Your task to perform on an android device: change your default location settings in chrome Image 0: 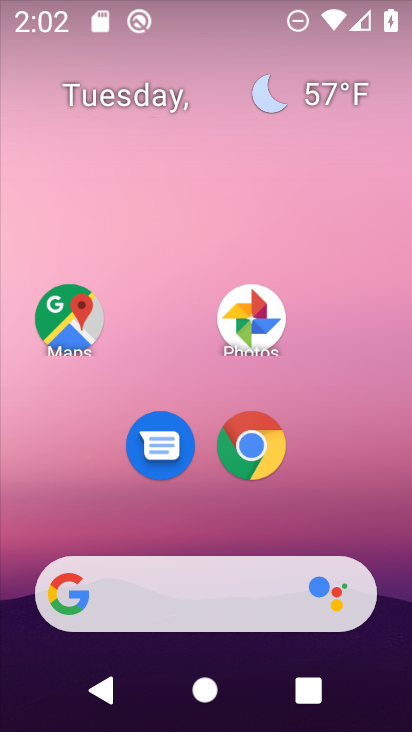
Step 0: drag from (377, 533) to (375, 197)
Your task to perform on an android device: change your default location settings in chrome Image 1: 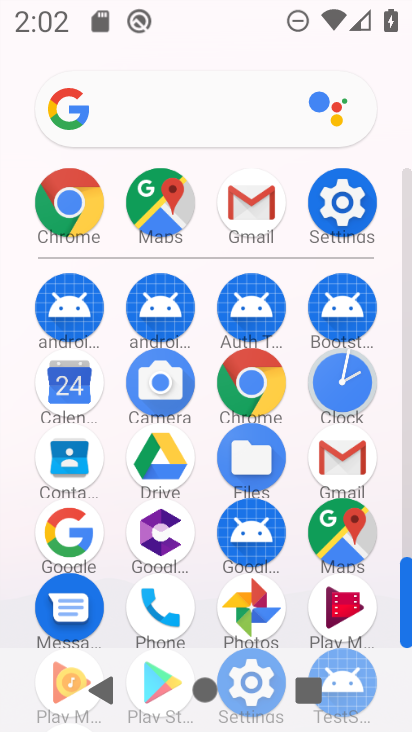
Step 1: click (271, 369)
Your task to perform on an android device: change your default location settings in chrome Image 2: 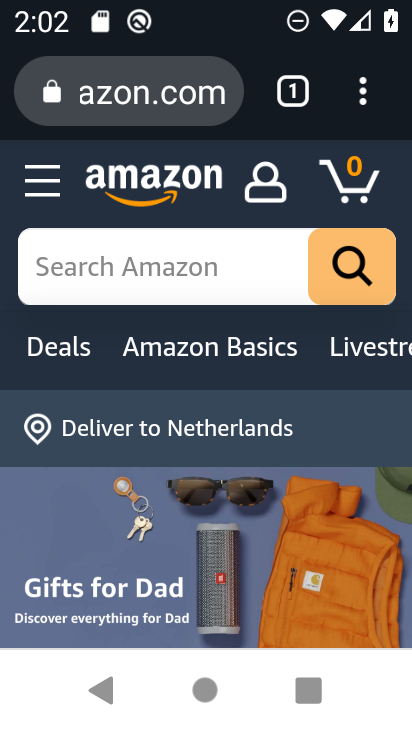
Step 2: click (365, 108)
Your task to perform on an android device: change your default location settings in chrome Image 3: 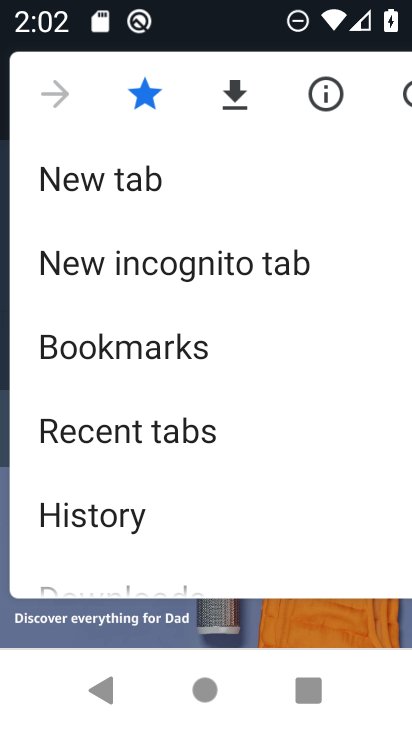
Step 3: drag from (321, 505) to (329, 397)
Your task to perform on an android device: change your default location settings in chrome Image 4: 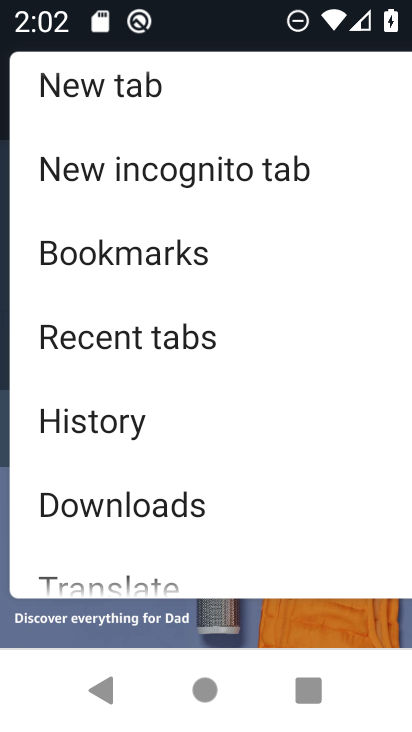
Step 4: drag from (342, 525) to (368, 392)
Your task to perform on an android device: change your default location settings in chrome Image 5: 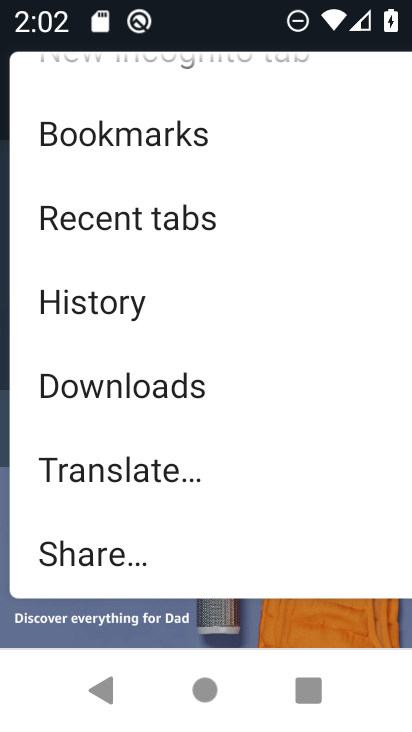
Step 5: drag from (330, 551) to (327, 418)
Your task to perform on an android device: change your default location settings in chrome Image 6: 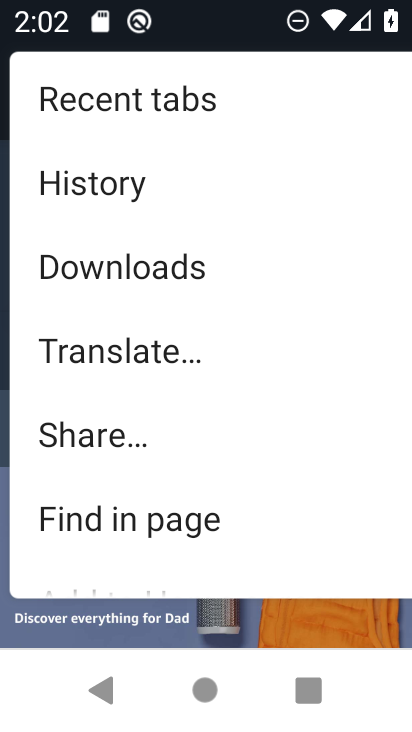
Step 6: drag from (317, 543) to (334, 351)
Your task to perform on an android device: change your default location settings in chrome Image 7: 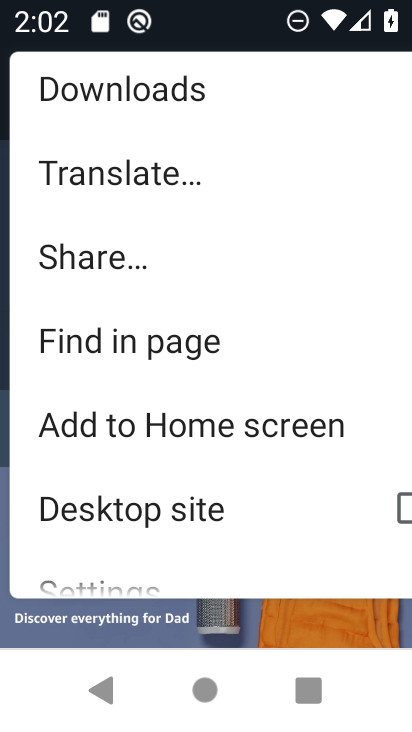
Step 7: drag from (311, 532) to (309, 372)
Your task to perform on an android device: change your default location settings in chrome Image 8: 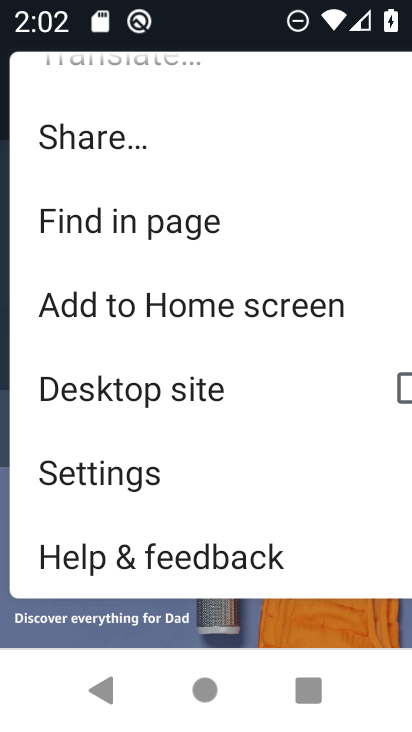
Step 8: click (175, 490)
Your task to perform on an android device: change your default location settings in chrome Image 9: 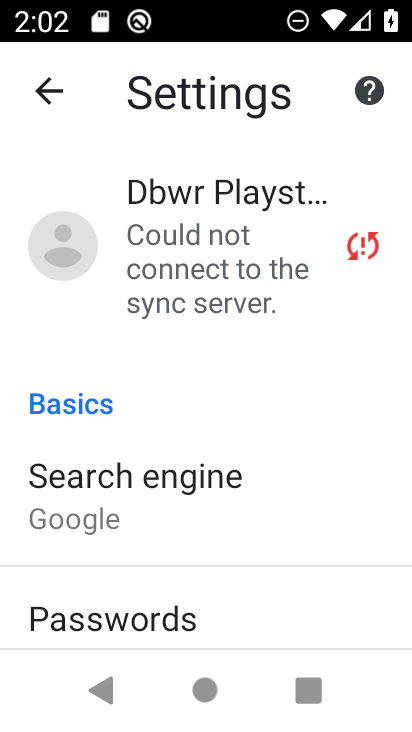
Step 9: drag from (320, 591) to (318, 494)
Your task to perform on an android device: change your default location settings in chrome Image 10: 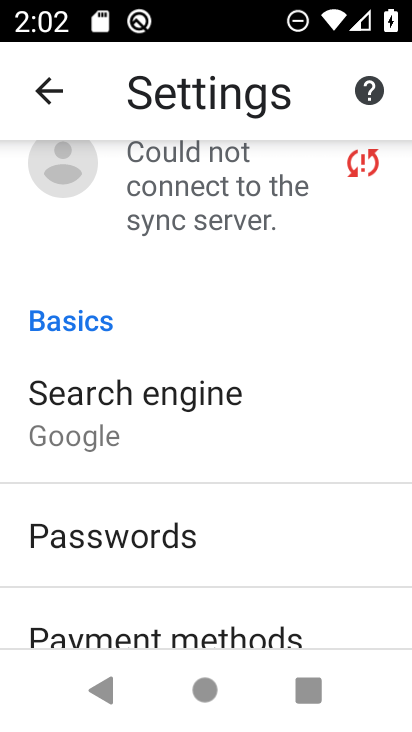
Step 10: drag from (306, 569) to (314, 464)
Your task to perform on an android device: change your default location settings in chrome Image 11: 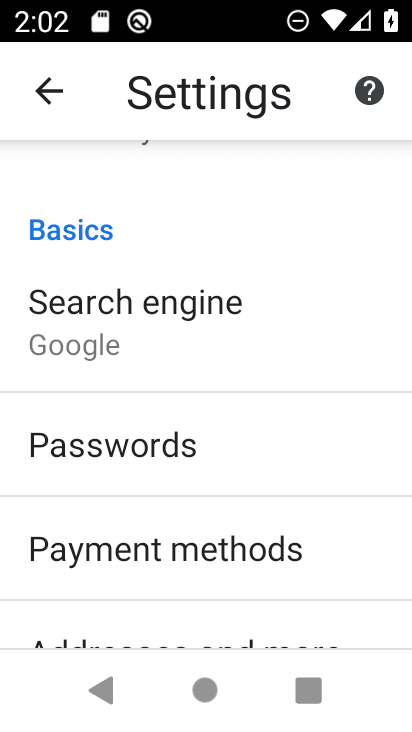
Step 11: drag from (347, 612) to (343, 514)
Your task to perform on an android device: change your default location settings in chrome Image 12: 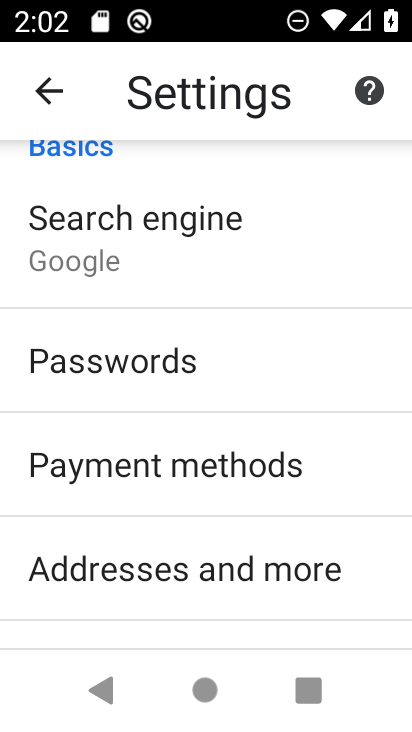
Step 12: drag from (367, 554) to (381, 454)
Your task to perform on an android device: change your default location settings in chrome Image 13: 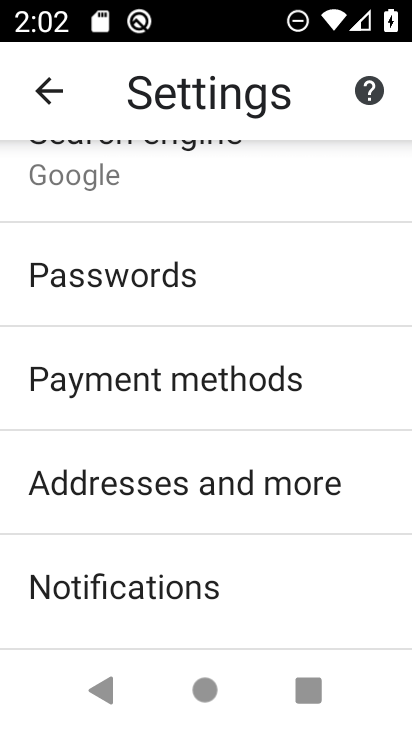
Step 13: drag from (355, 582) to (352, 513)
Your task to perform on an android device: change your default location settings in chrome Image 14: 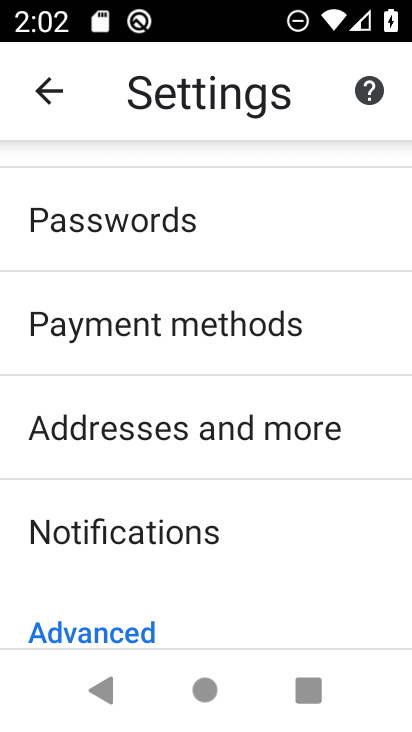
Step 14: drag from (334, 589) to (343, 471)
Your task to perform on an android device: change your default location settings in chrome Image 15: 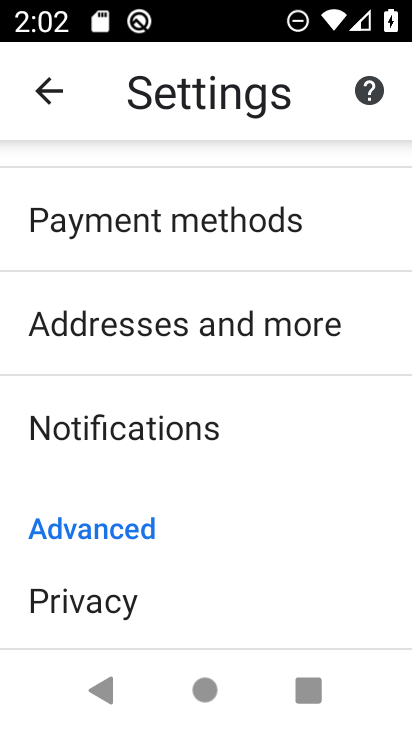
Step 15: drag from (330, 580) to (344, 494)
Your task to perform on an android device: change your default location settings in chrome Image 16: 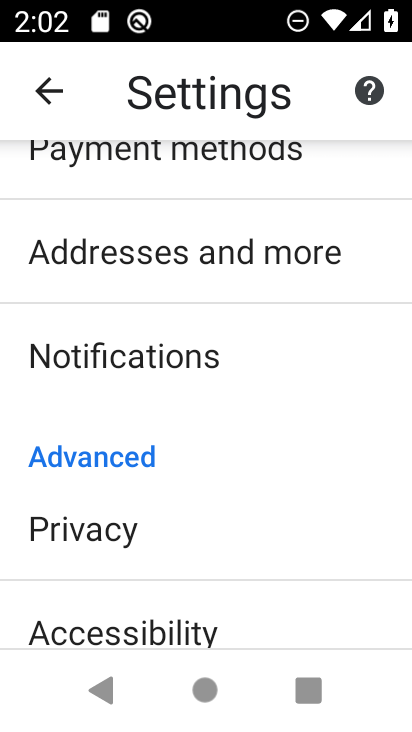
Step 16: drag from (336, 604) to (358, 510)
Your task to perform on an android device: change your default location settings in chrome Image 17: 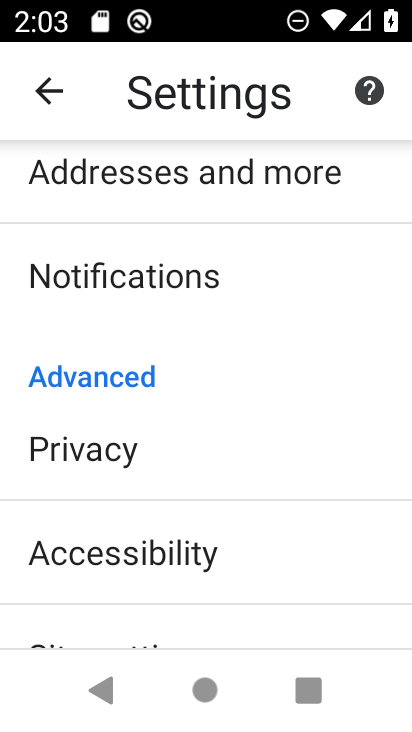
Step 17: drag from (326, 607) to (325, 495)
Your task to perform on an android device: change your default location settings in chrome Image 18: 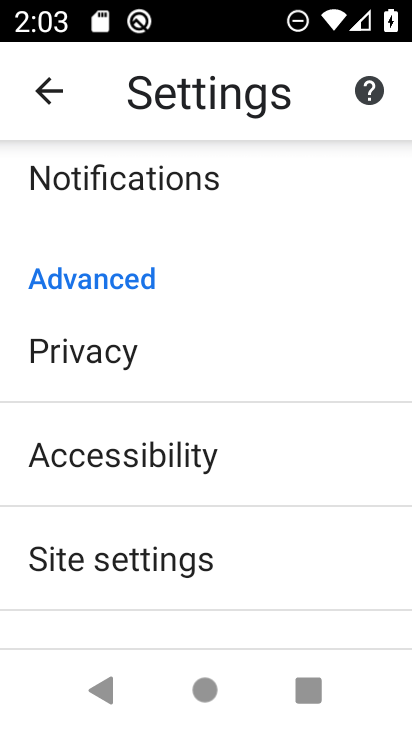
Step 18: click (298, 551)
Your task to perform on an android device: change your default location settings in chrome Image 19: 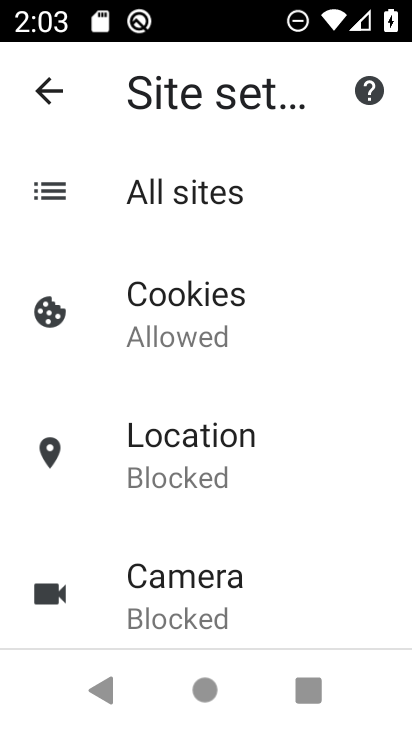
Step 19: click (288, 487)
Your task to perform on an android device: change your default location settings in chrome Image 20: 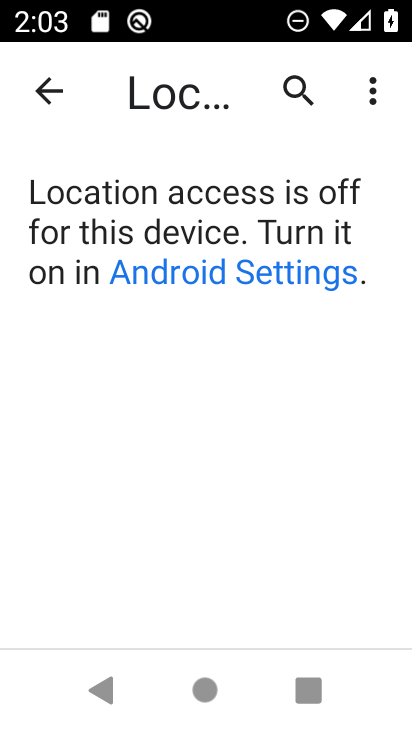
Step 20: click (319, 274)
Your task to perform on an android device: change your default location settings in chrome Image 21: 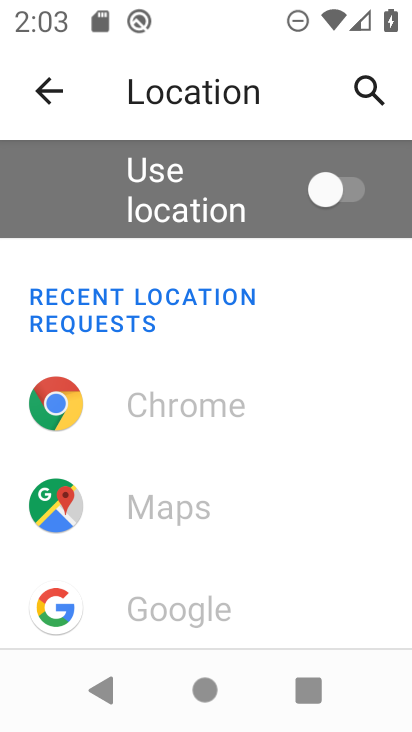
Step 21: click (337, 206)
Your task to perform on an android device: change your default location settings in chrome Image 22: 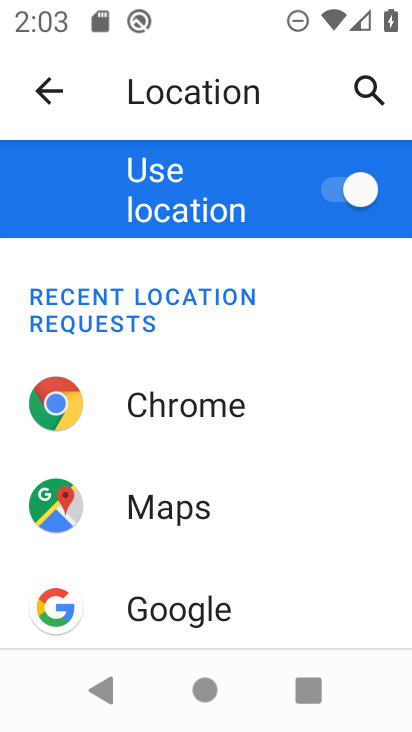
Step 22: task complete